Your task to perform on an android device: Open network settings Image 0: 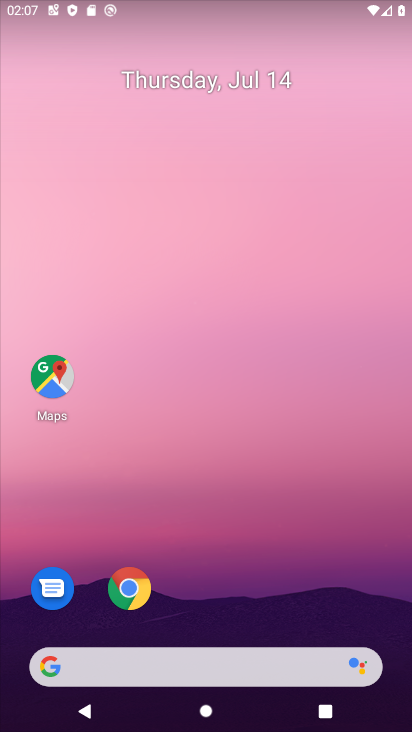
Step 0: drag from (163, 697) to (169, 87)
Your task to perform on an android device: Open network settings Image 1: 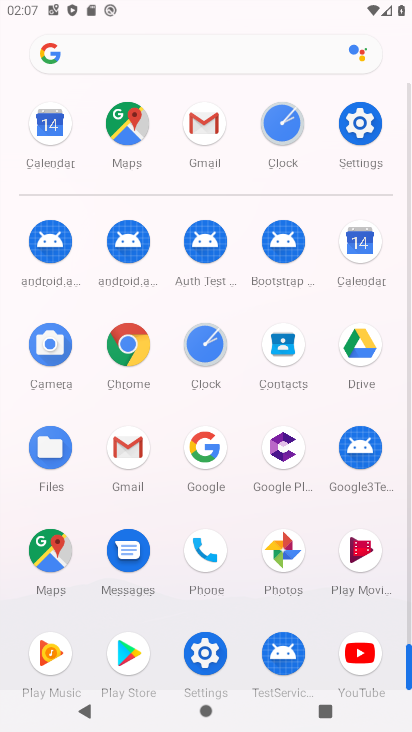
Step 1: click (359, 130)
Your task to perform on an android device: Open network settings Image 2: 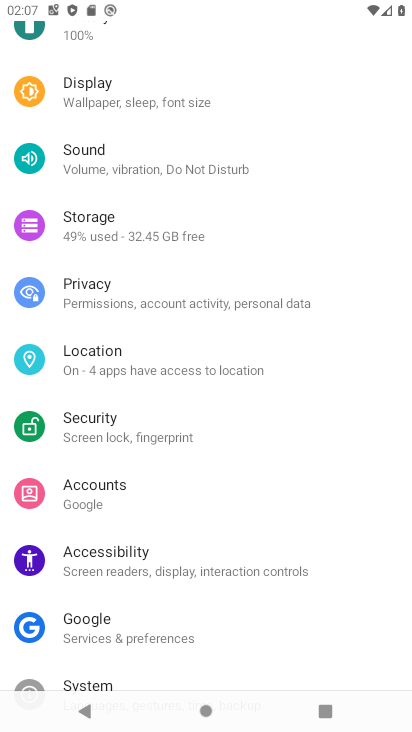
Step 2: drag from (295, 111) to (160, 695)
Your task to perform on an android device: Open network settings Image 3: 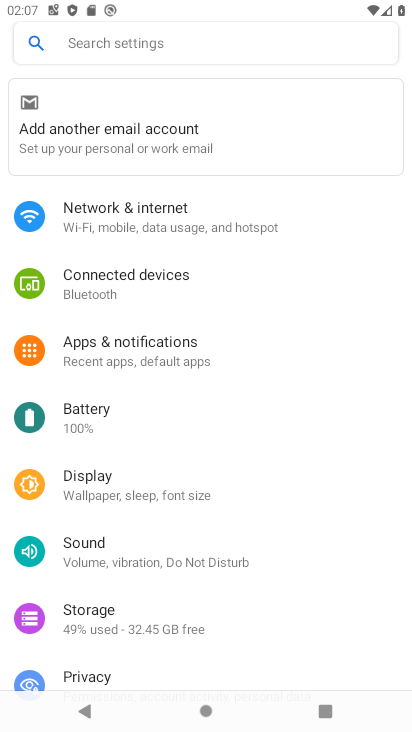
Step 3: click (271, 216)
Your task to perform on an android device: Open network settings Image 4: 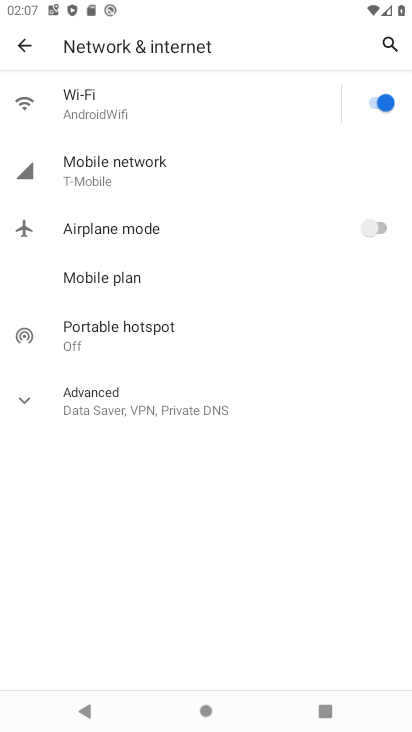
Step 4: task complete